Your task to perform on an android device: clear history in the chrome app Image 0: 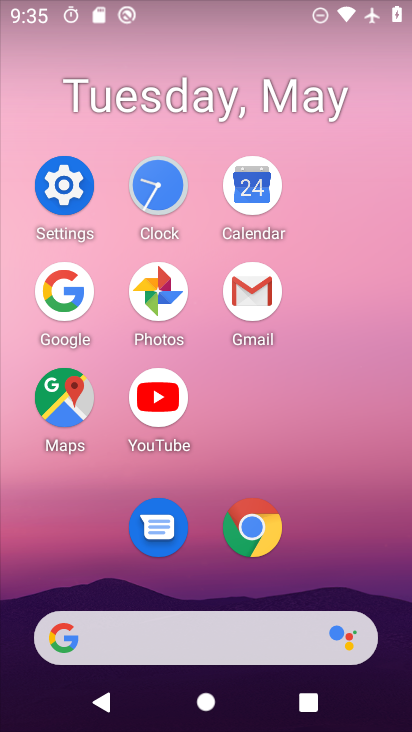
Step 0: click (233, 547)
Your task to perform on an android device: clear history in the chrome app Image 1: 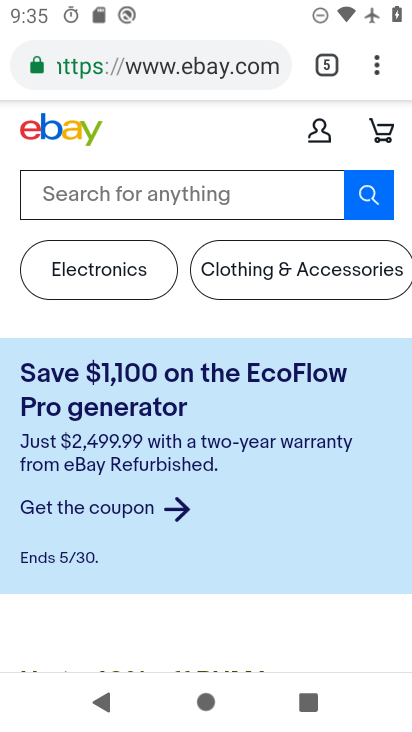
Step 1: click (367, 75)
Your task to perform on an android device: clear history in the chrome app Image 2: 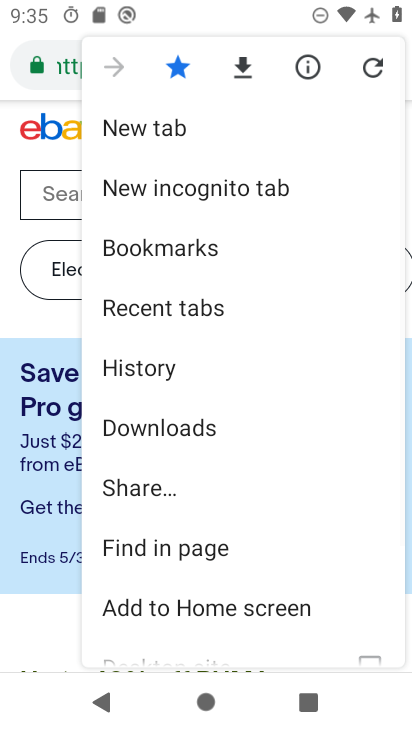
Step 2: click (165, 368)
Your task to perform on an android device: clear history in the chrome app Image 3: 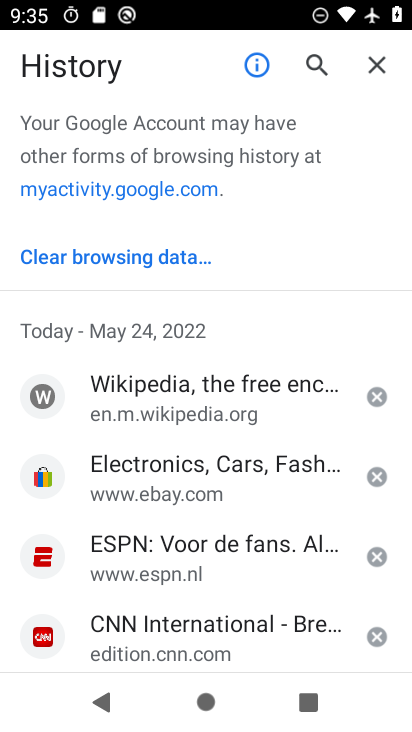
Step 3: click (112, 255)
Your task to perform on an android device: clear history in the chrome app Image 4: 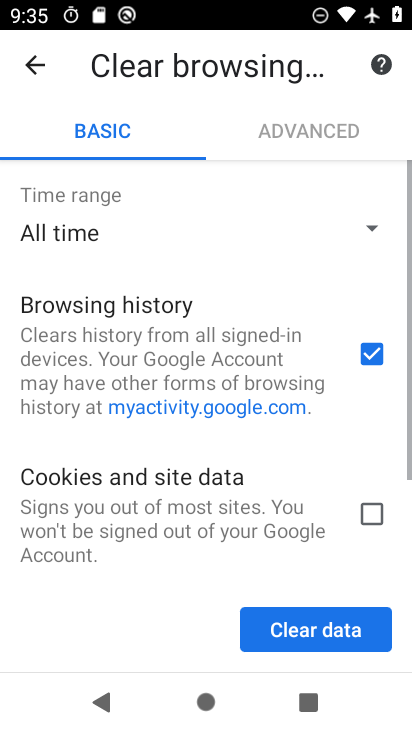
Step 4: click (332, 633)
Your task to perform on an android device: clear history in the chrome app Image 5: 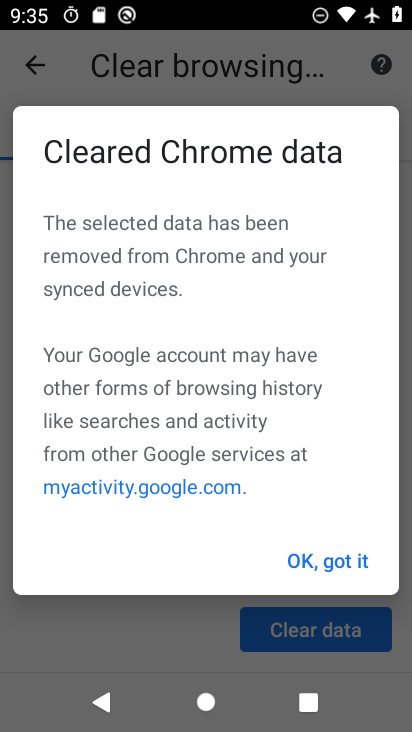
Step 5: click (341, 557)
Your task to perform on an android device: clear history in the chrome app Image 6: 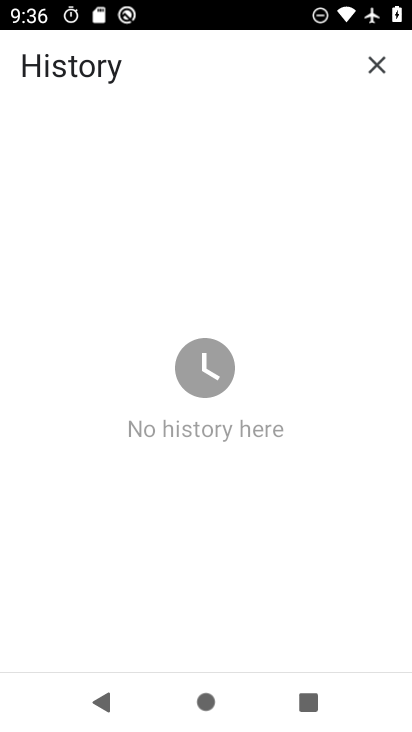
Step 6: task complete